Your task to perform on an android device: open the mobile data screen to see how much data has been used Image 0: 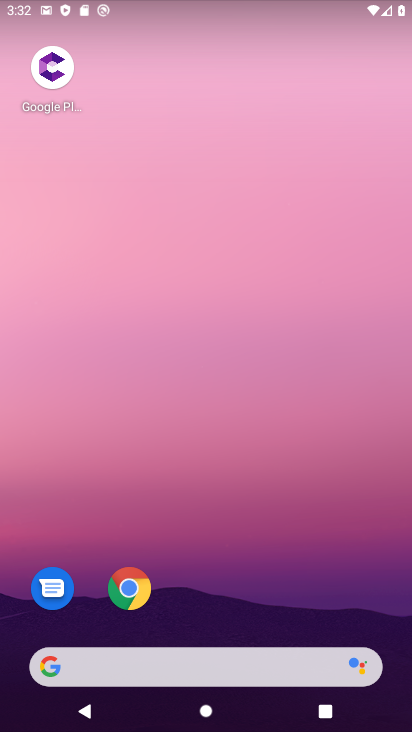
Step 0: drag from (340, 603) to (377, 7)
Your task to perform on an android device: open the mobile data screen to see how much data has been used Image 1: 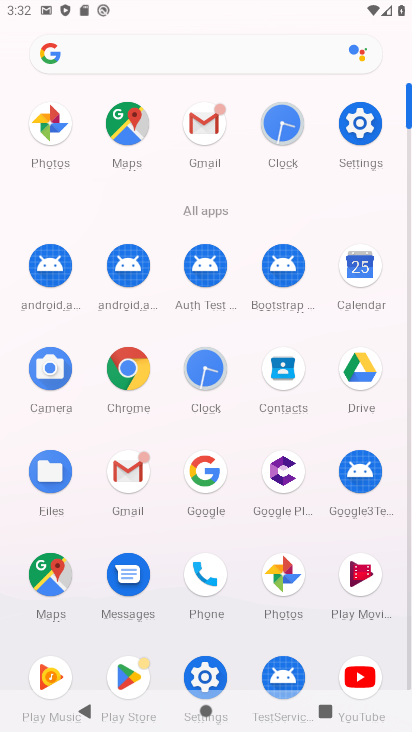
Step 1: drag from (374, 10) to (351, 447)
Your task to perform on an android device: open the mobile data screen to see how much data has been used Image 2: 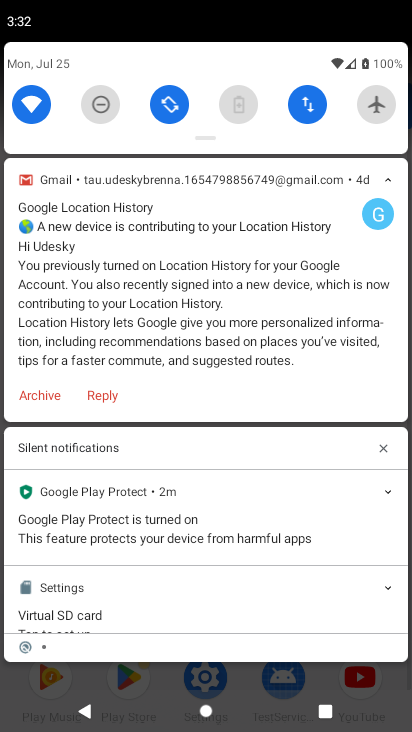
Step 2: click (308, 102)
Your task to perform on an android device: open the mobile data screen to see how much data has been used Image 3: 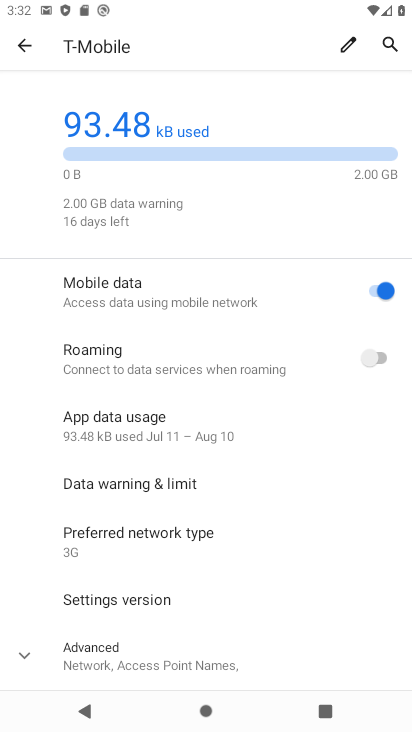
Step 3: task complete